Your task to perform on an android device: toggle show notifications on the lock screen Image 0: 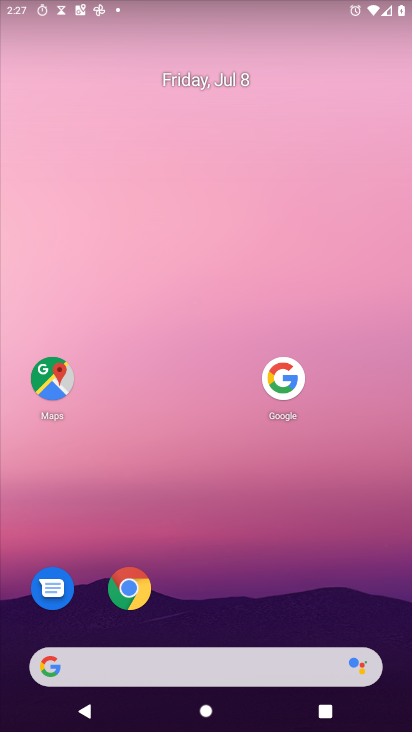
Step 0: drag from (164, 661) to (290, 27)
Your task to perform on an android device: toggle show notifications on the lock screen Image 1: 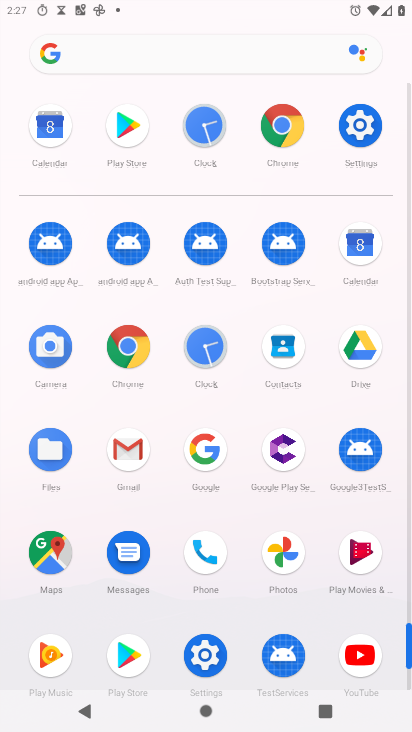
Step 1: click (352, 132)
Your task to perform on an android device: toggle show notifications on the lock screen Image 2: 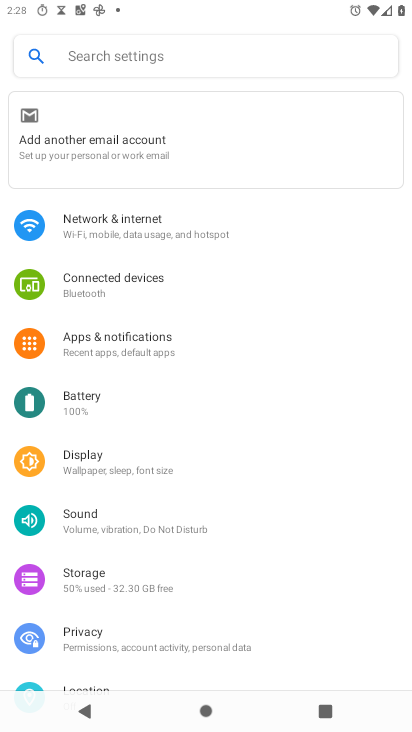
Step 2: click (118, 342)
Your task to perform on an android device: toggle show notifications on the lock screen Image 3: 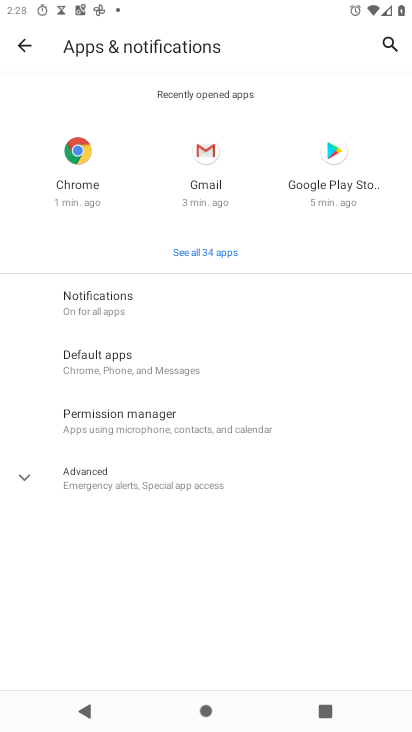
Step 3: click (125, 300)
Your task to perform on an android device: toggle show notifications on the lock screen Image 4: 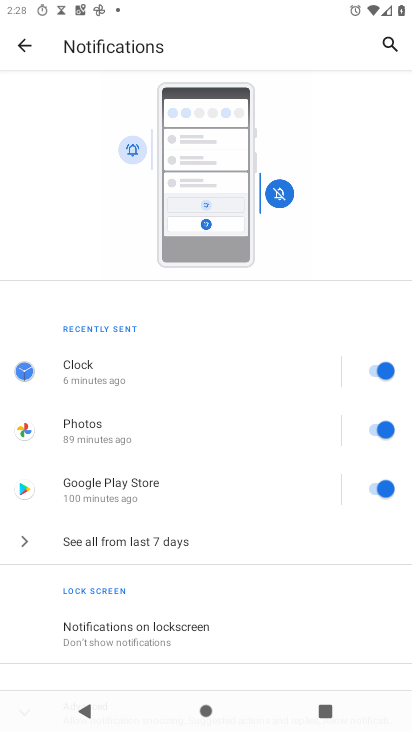
Step 4: drag from (204, 591) to (245, 355)
Your task to perform on an android device: toggle show notifications on the lock screen Image 5: 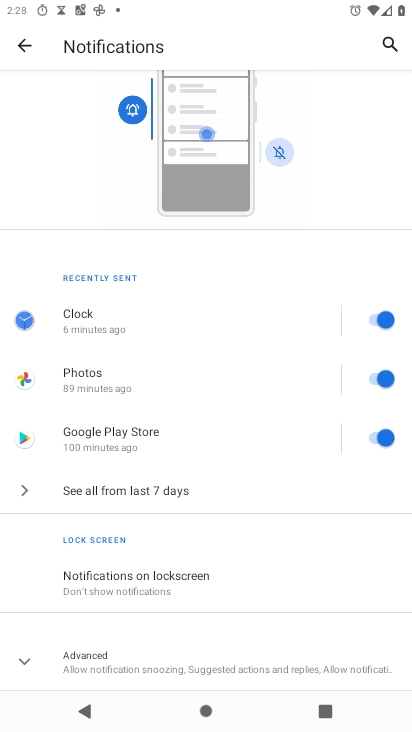
Step 5: click (131, 584)
Your task to perform on an android device: toggle show notifications on the lock screen Image 6: 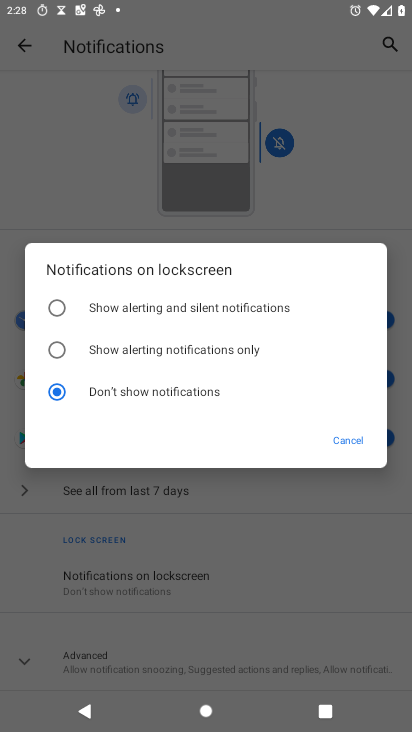
Step 6: click (53, 304)
Your task to perform on an android device: toggle show notifications on the lock screen Image 7: 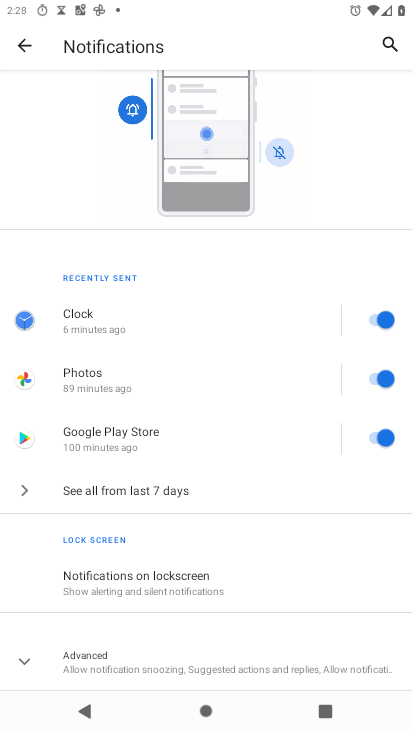
Step 7: task complete